Your task to perform on an android device: Open Youtube and go to the subscriptions tab Image 0: 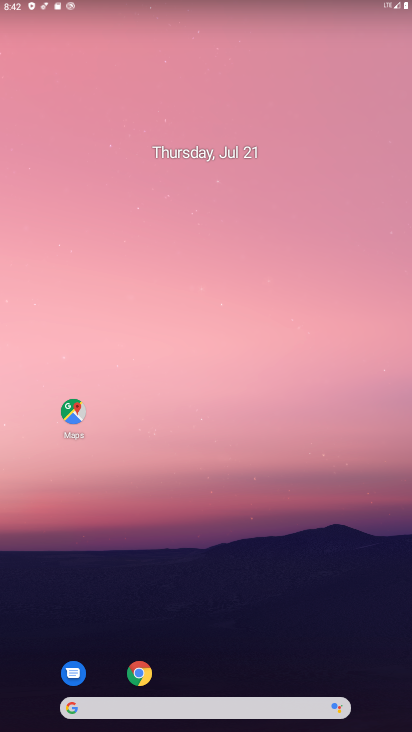
Step 0: drag from (214, 619) to (249, 99)
Your task to perform on an android device: Open Youtube and go to the subscriptions tab Image 1: 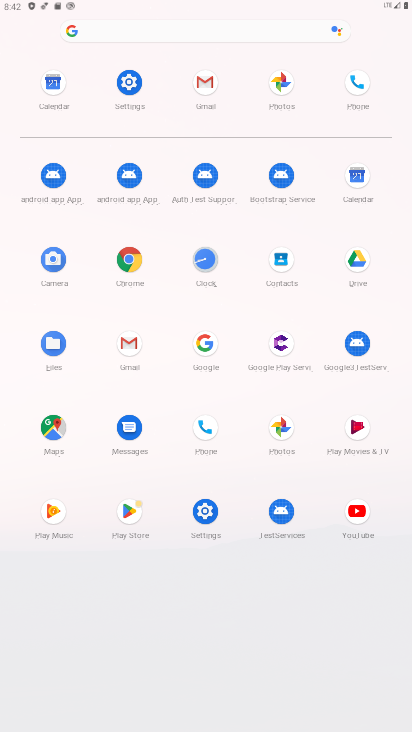
Step 1: click (357, 527)
Your task to perform on an android device: Open Youtube and go to the subscriptions tab Image 2: 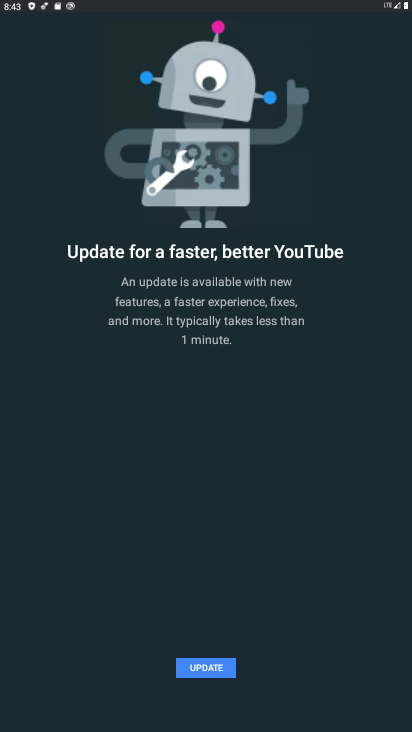
Step 2: click (204, 676)
Your task to perform on an android device: Open Youtube and go to the subscriptions tab Image 3: 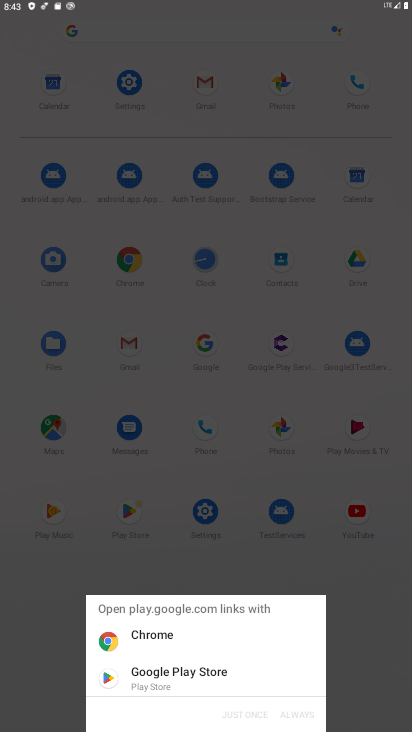
Step 3: click (145, 682)
Your task to perform on an android device: Open Youtube and go to the subscriptions tab Image 4: 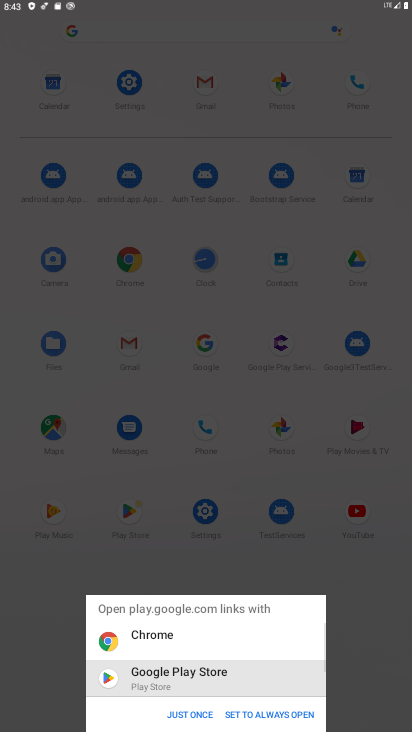
Step 4: click (181, 718)
Your task to perform on an android device: Open Youtube and go to the subscriptions tab Image 5: 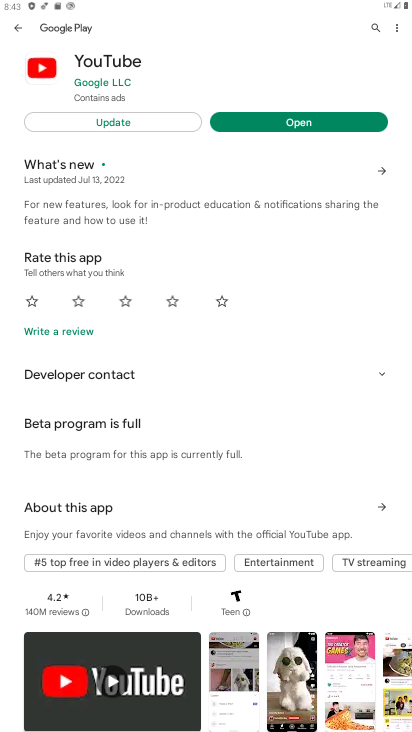
Step 5: click (125, 129)
Your task to perform on an android device: Open Youtube and go to the subscriptions tab Image 6: 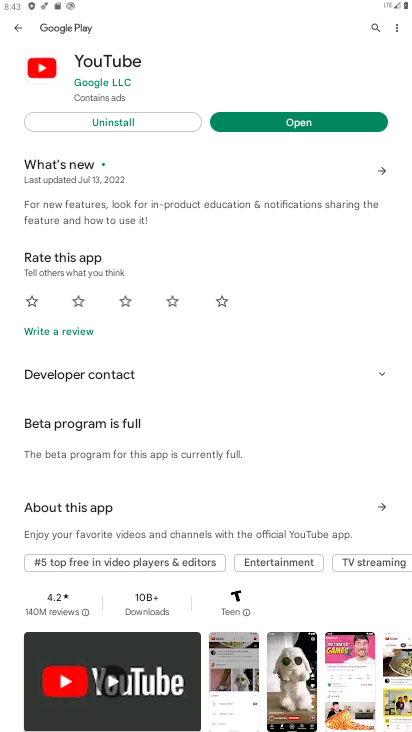
Step 6: click (252, 124)
Your task to perform on an android device: Open Youtube and go to the subscriptions tab Image 7: 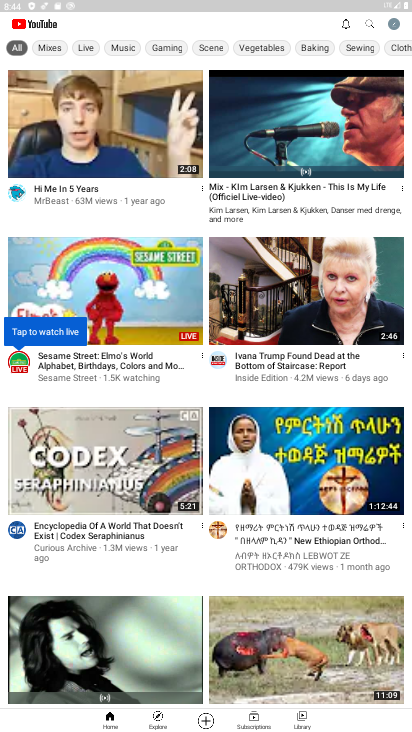
Step 7: click (245, 722)
Your task to perform on an android device: Open Youtube and go to the subscriptions tab Image 8: 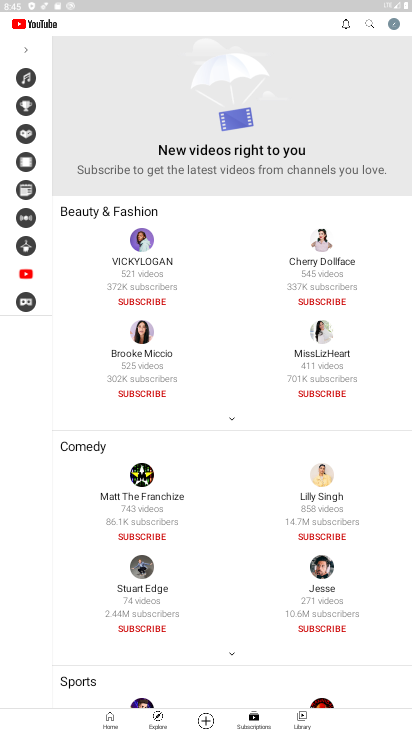
Step 8: task complete